Your task to perform on an android device: turn off wifi Image 0: 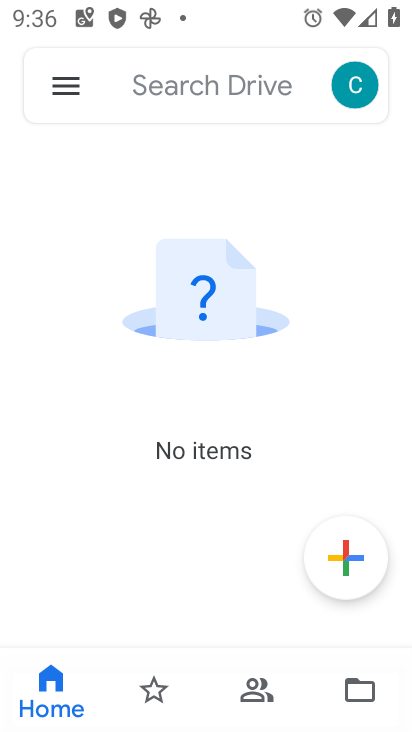
Step 0: press home button
Your task to perform on an android device: turn off wifi Image 1: 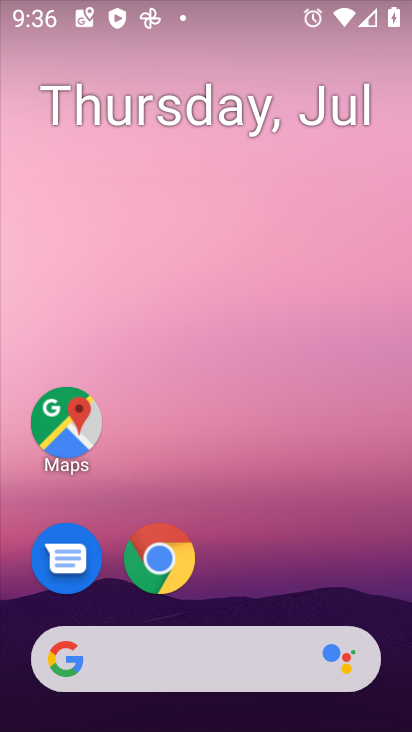
Step 1: drag from (369, 540) to (375, 62)
Your task to perform on an android device: turn off wifi Image 2: 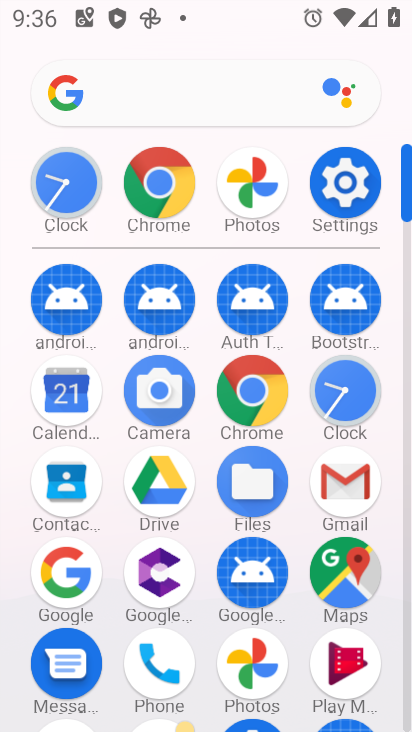
Step 2: click (351, 193)
Your task to perform on an android device: turn off wifi Image 3: 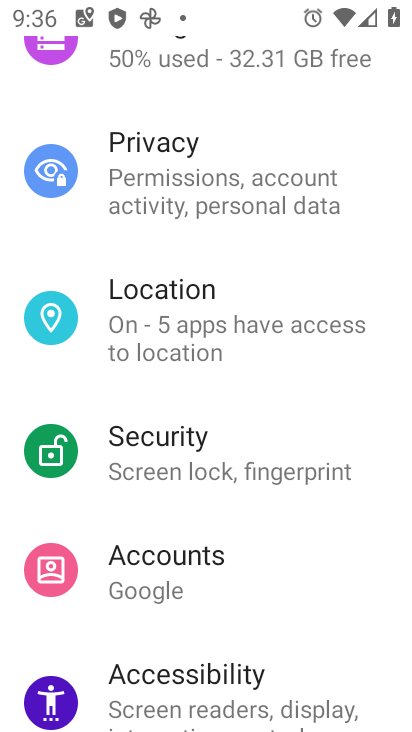
Step 3: drag from (381, 251) to (390, 329)
Your task to perform on an android device: turn off wifi Image 4: 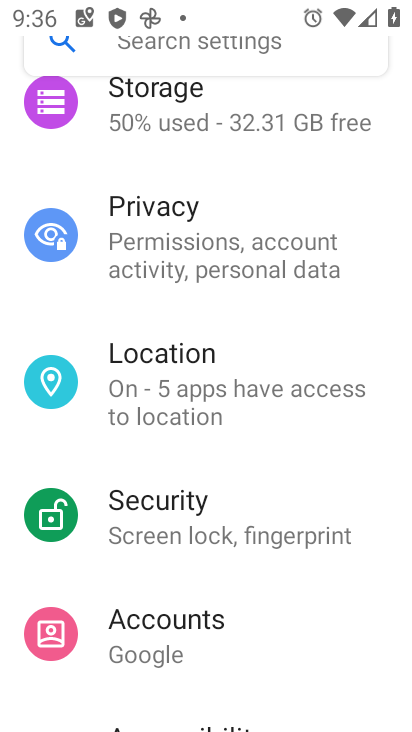
Step 4: drag from (385, 244) to (385, 356)
Your task to perform on an android device: turn off wifi Image 5: 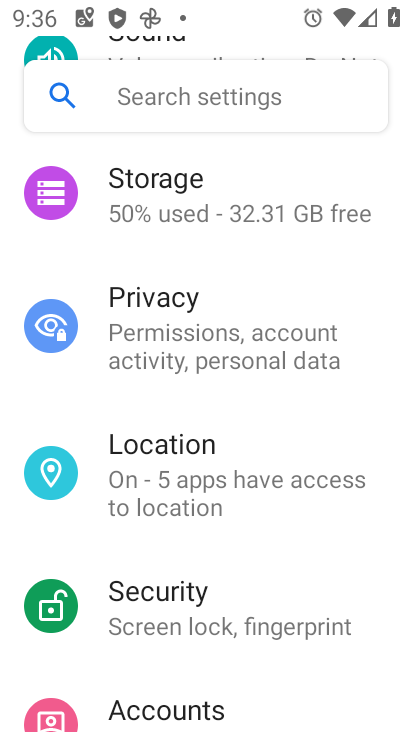
Step 5: drag from (385, 272) to (368, 432)
Your task to perform on an android device: turn off wifi Image 6: 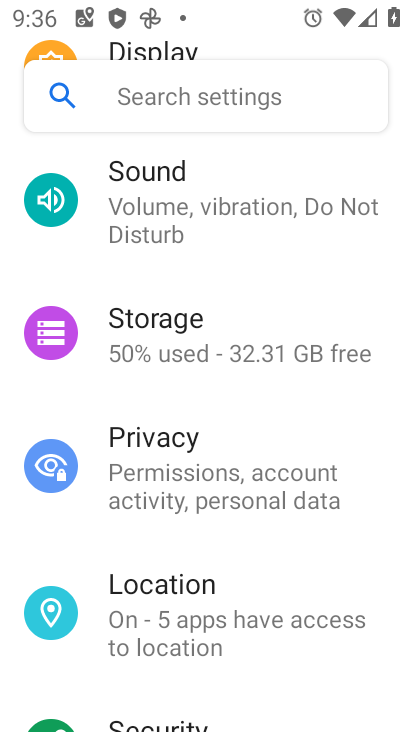
Step 6: drag from (380, 293) to (374, 412)
Your task to perform on an android device: turn off wifi Image 7: 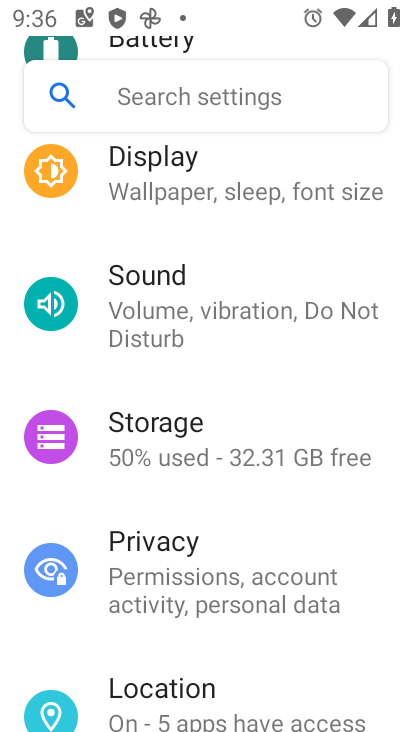
Step 7: drag from (382, 261) to (376, 413)
Your task to perform on an android device: turn off wifi Image 8: 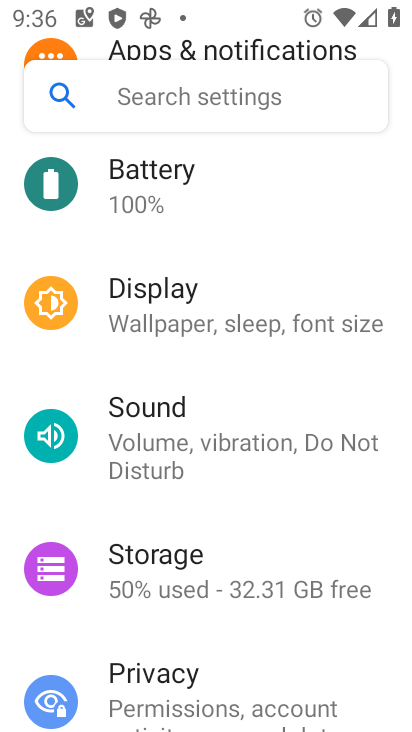
Step 8: drag from (384, 253) to (376, 401)
Your task to perform on an android device: turn off wifi Image 9: 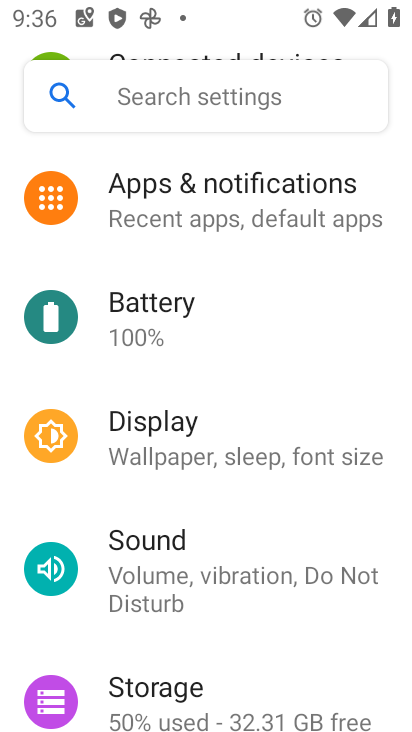
Step 9: drag from (374, 272) to (360, 394)
Your task to perform on an android device: turn off wifi Image 10: 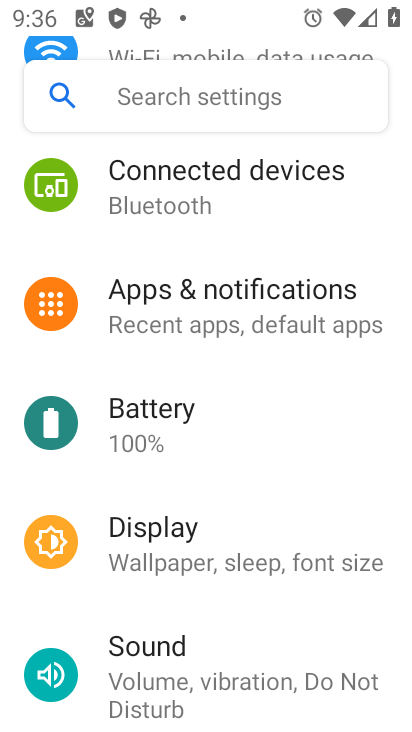
Step 10: drag from (365, 267) to (362, 385)
Your task to perform on an android device: turn off wifi Image 11: 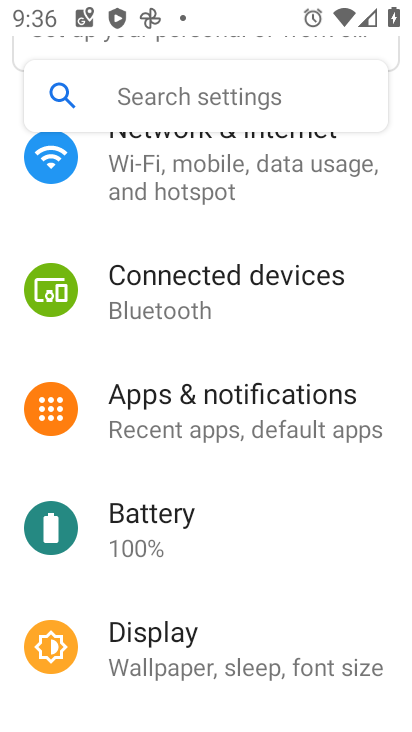
Step 11: drag from (365, 281) to (368, 404)
Your task to perform on an android device: turn off wifi Image 12: 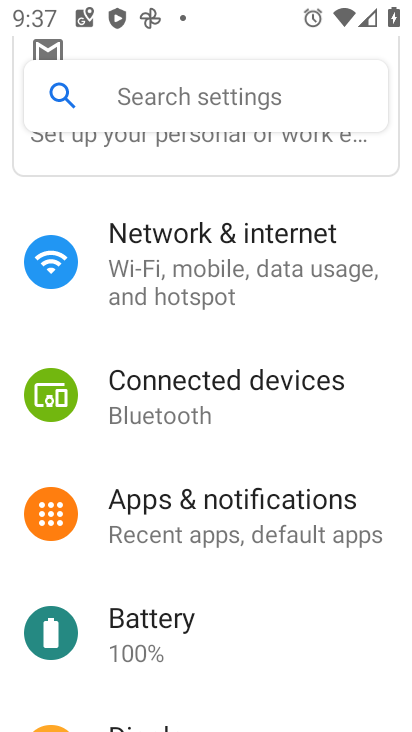
Step 12: drag from (375, 299) to (377, 432)
Your task to perform on an android device: turn off wifi Image 13: 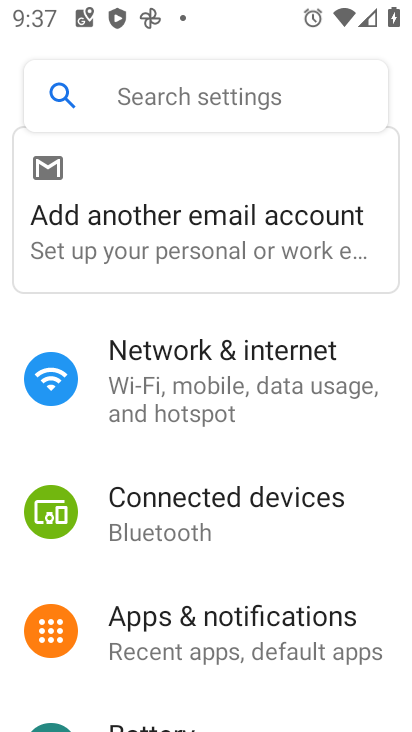
Step 13: click (332, 357)
Your task to perform on an android device: turn off wifi Image 14: 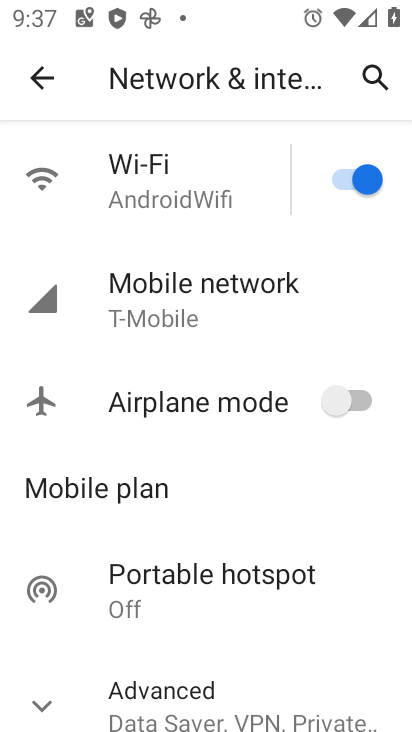
Step 14: click (364, 178)
Your task to perform on an android device: turn off wifi Image 15: 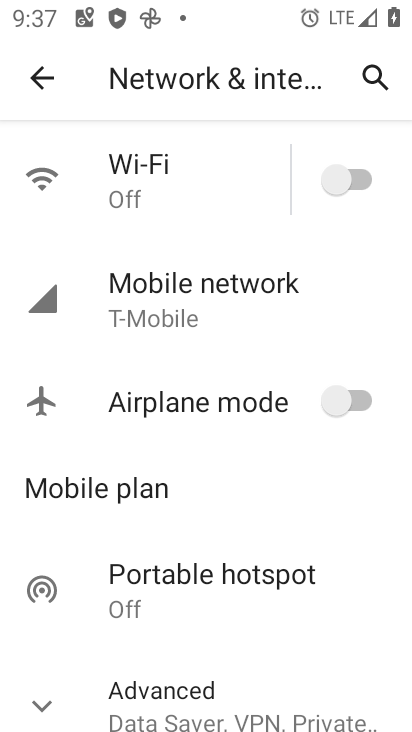
Step 15: task complete